Your task to perform on an android device: What's the latest video from IGN? Image 0: 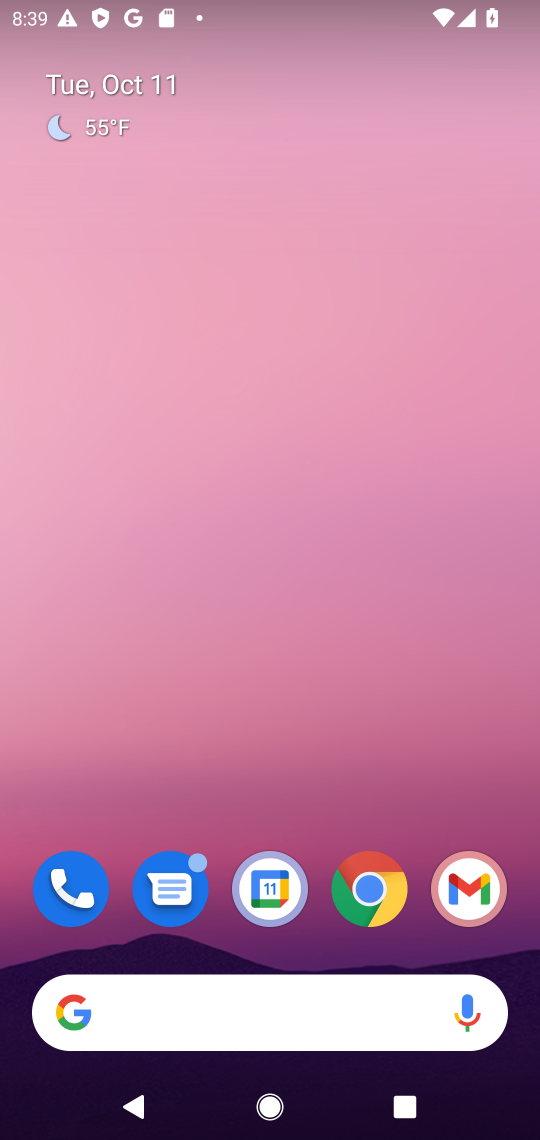
Step 0: click (212, 1015)
Your task to perform on an android device: What's the latest video from IGN? Image 1: 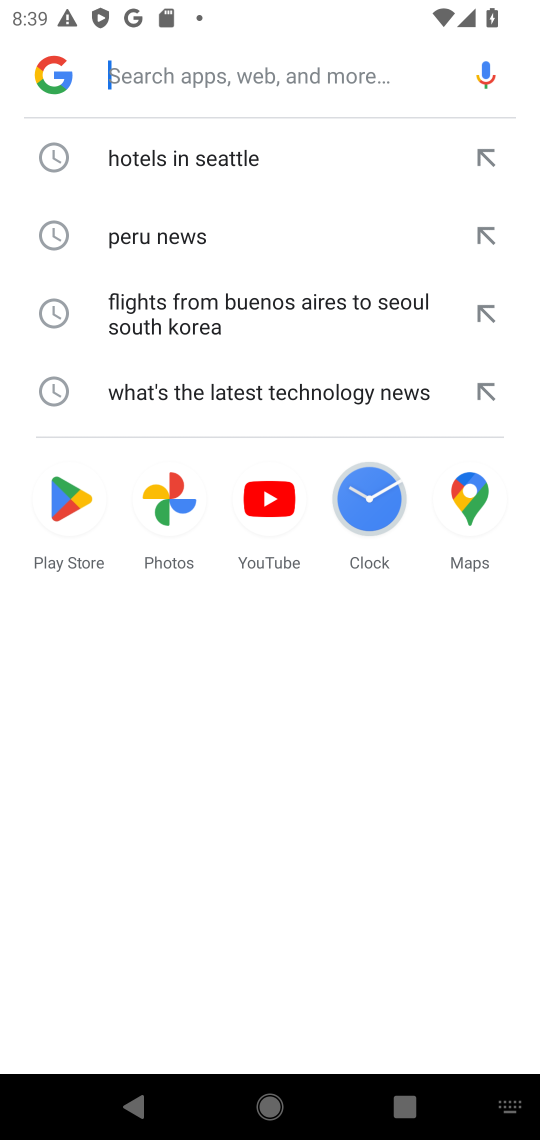
Step 1: click (165, 77)
Your task to perform on an android device: What's the latest video from IGN? Image 2: 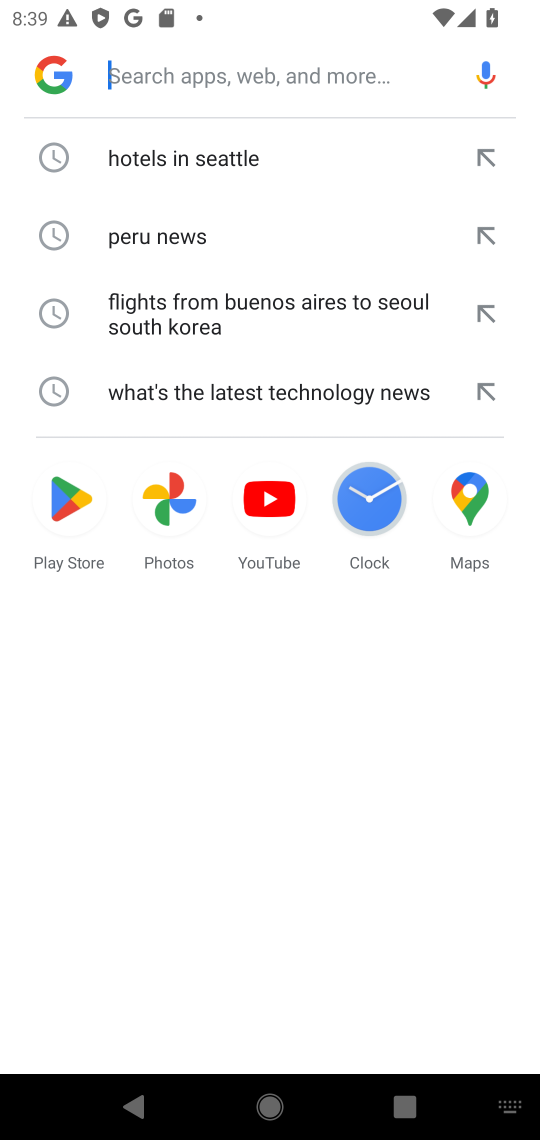
Step 2: type "What's the latest video from IGN?"
Your task to perform on an android device: What's the latest video from IGN? Image 3: 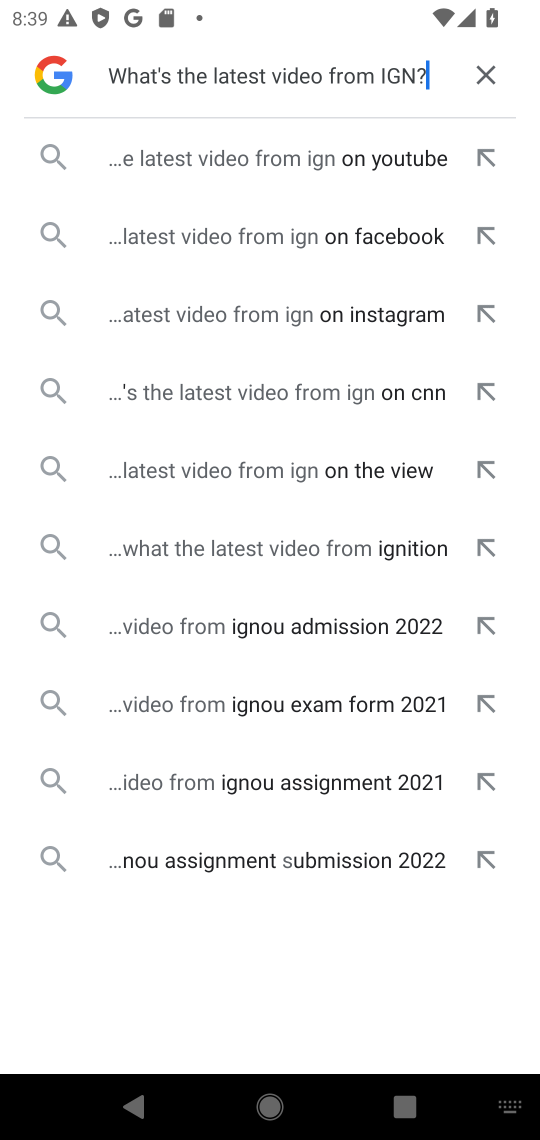
Step 3: click (215, 155)
Your task to perform on an android device: What's the latest video from IGN? Image 4: 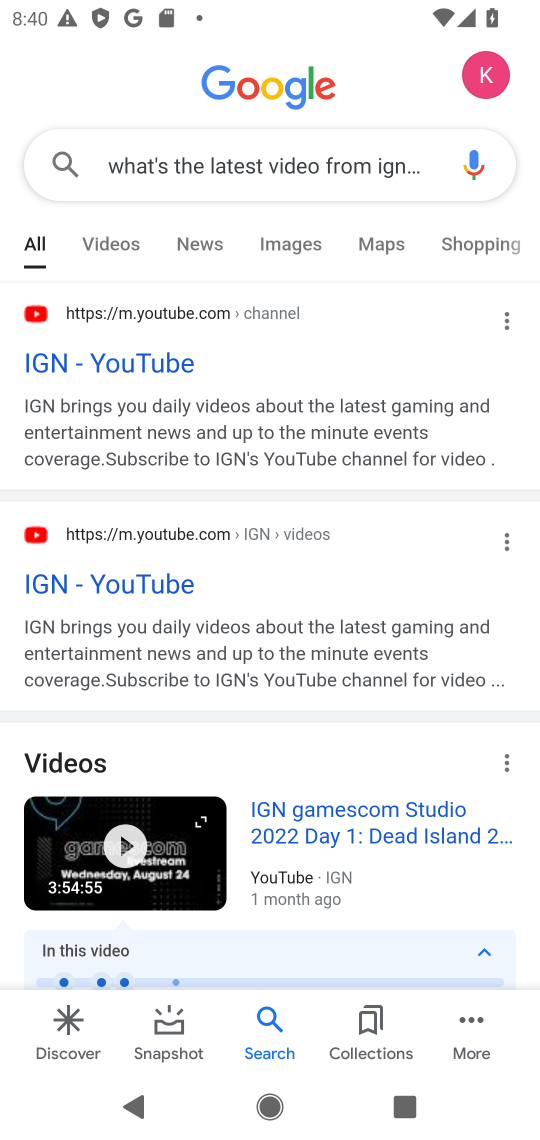
Step 4: task complete